Your task to perform on an android device: Open ESPN.com Image 0: 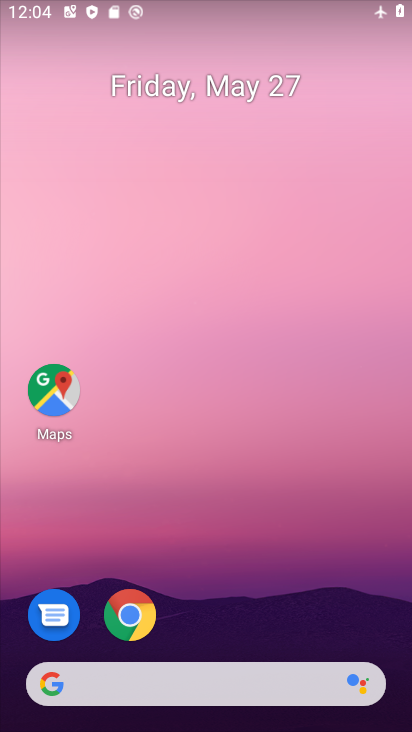
Step 0: drag from (223, 522) to (232, 48)
Your task to perform on an android device: Open ESPN.com Image 1: 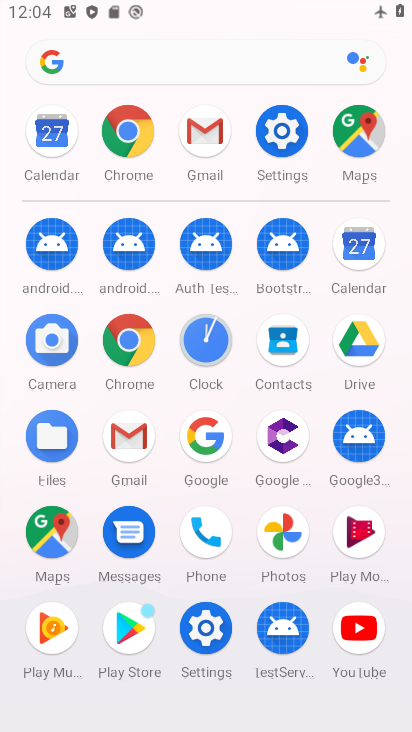
Step 1: click (108, 346)
Your task to perform on an android device: Open ESPN.com Image 2: 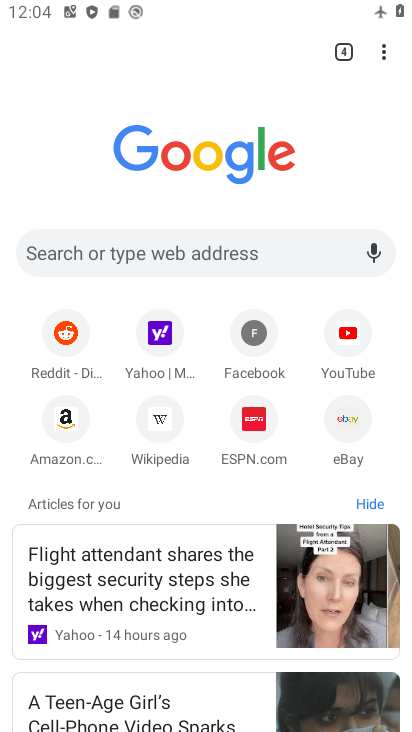
Step 2: type "espn.com"
Your task to perform on an android device: Open ESPN.com Image 3: 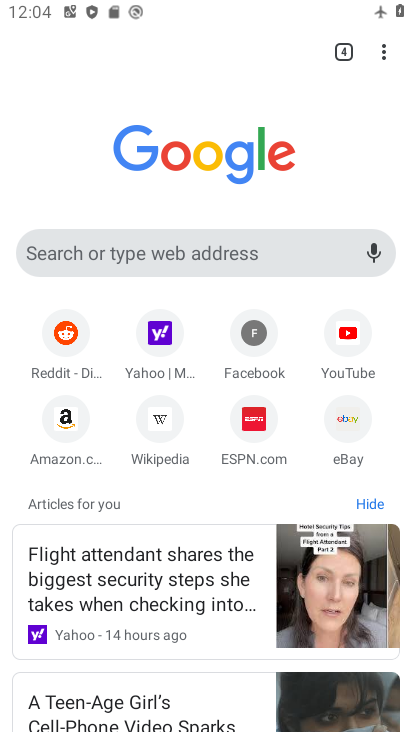
Step 3: click (269, 253)
Your task to perform on an android device: Open ESPN.com Image 4: 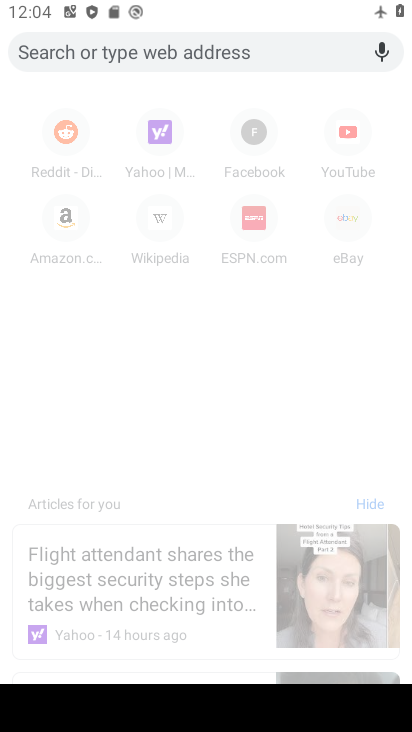
Step 4: type "espn.com"
Your task to perform on an android device: Open ESPN.com Image 5: 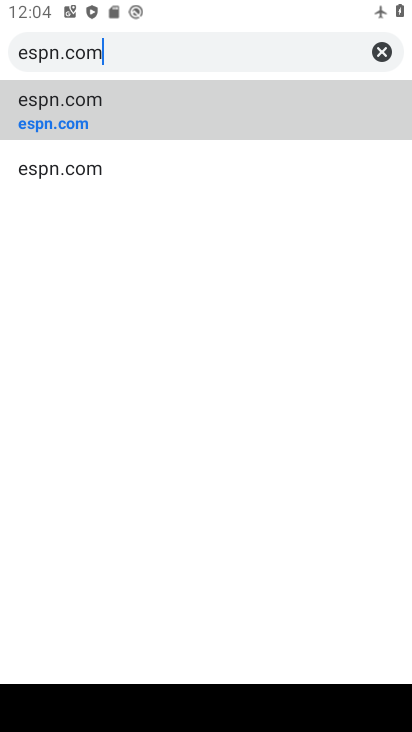
Step 5: click (126, 101)
Your task to perform on an android device: Open ESPN.com Image 6: 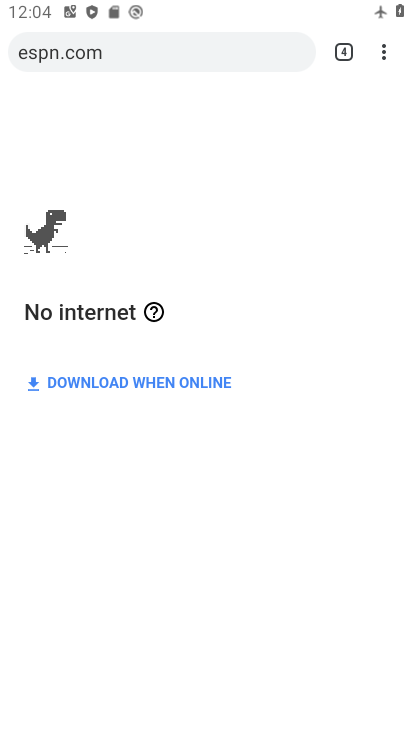
Step 6: task complete